Your task to perform on an android device: Go to Maps Image 0: 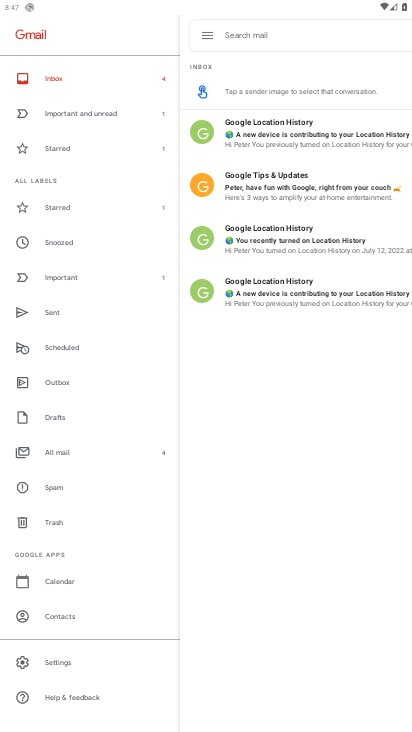
Step 0: press home button
Your task to perform on an android device: Go to Maps Image 1: 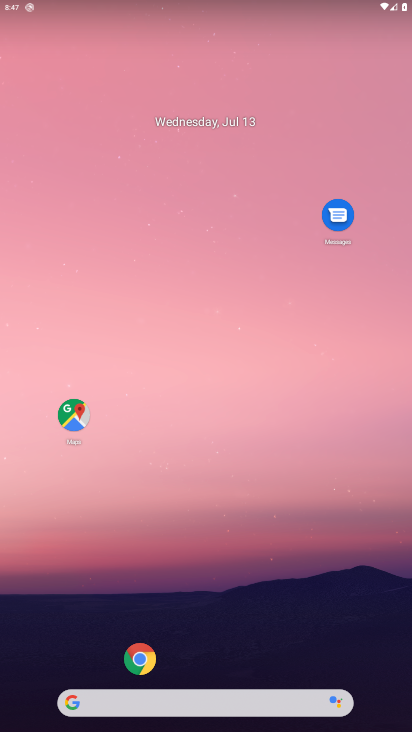
Step 1: click (73, 408)
Your task to perform on an android device: Go to Maps Image 2: 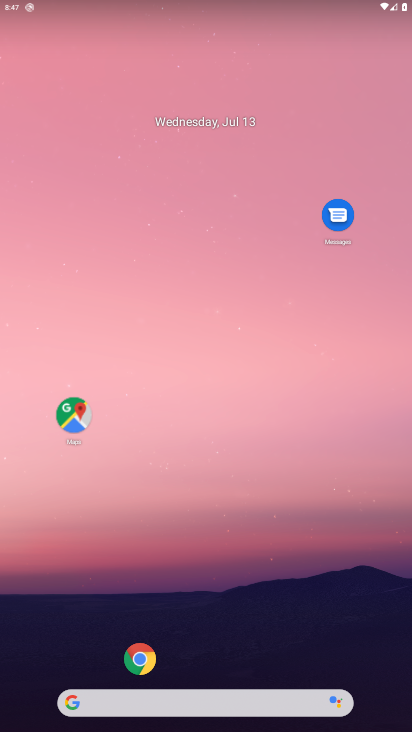
Step 2: click (67, 423)
Your task to perform on an android device: Go to Maps Image 3: 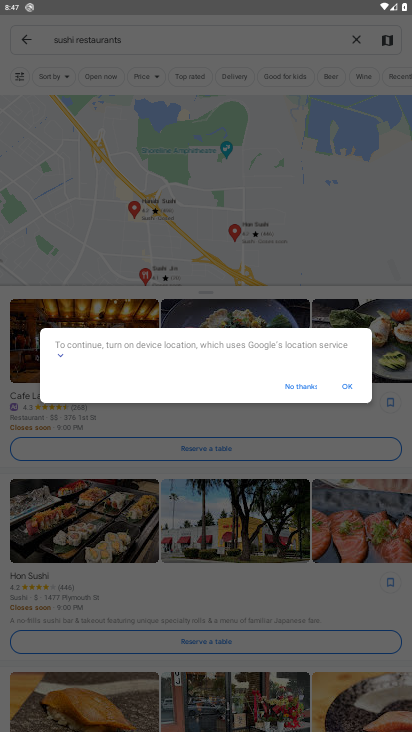
Step 3: click (341, 385)
Your task to perform on an android device: Go to Maps Image 4: 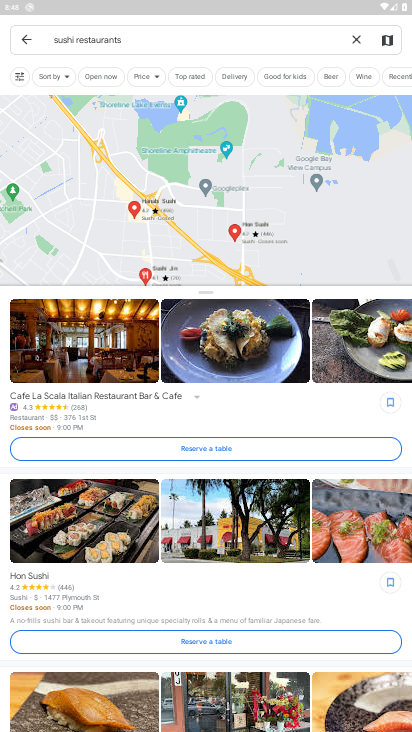
Step 4: click (21, 40)
Your task to perform on an android device: Go to Maps Image 5: 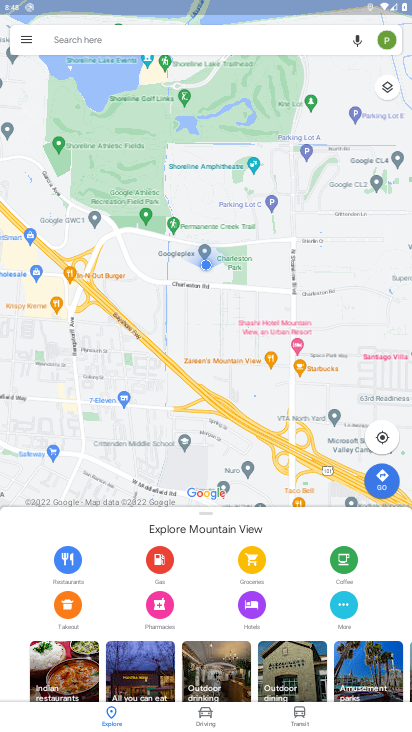
Step 5: task complete